Your task to perform on an android device: Do I have any events today? Image 0: 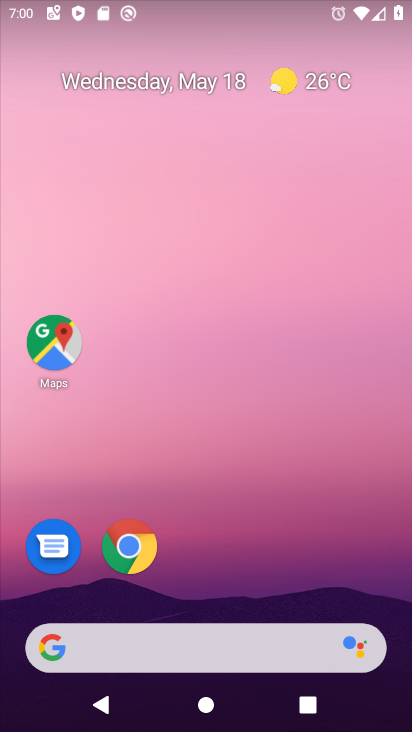
Step 0: drag from (376, 640) to (232, 83)
Your task to perform on an android device: Do I have any events today? Image 1: 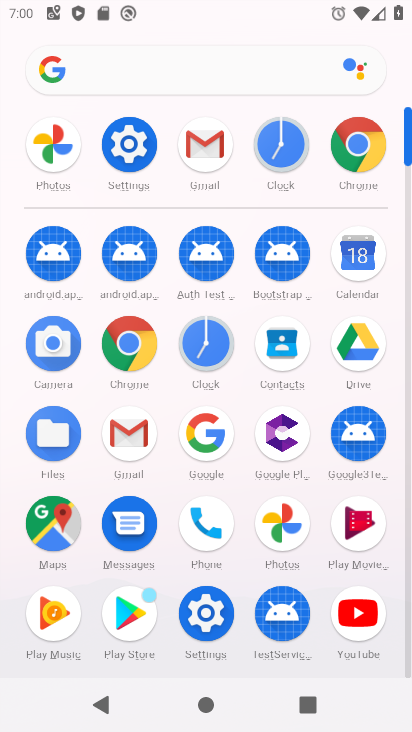
Step 1: click (378, 250)
Your task to perform on an android device: Do I have any events today? Image 2: 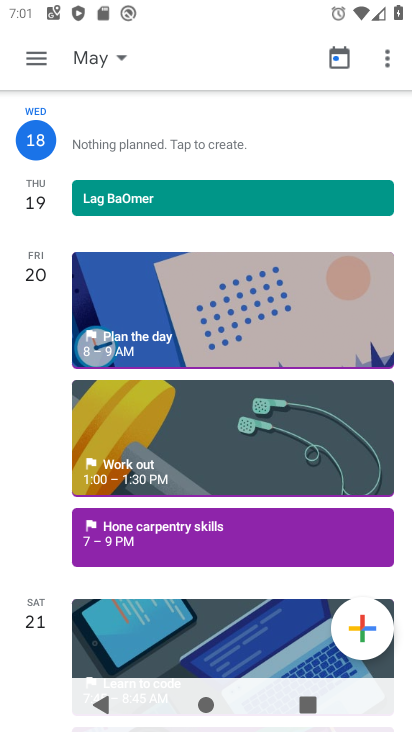
Step 2: click (92, 58)
Your task to perform on an android device: Do I have any events today? Image 3: 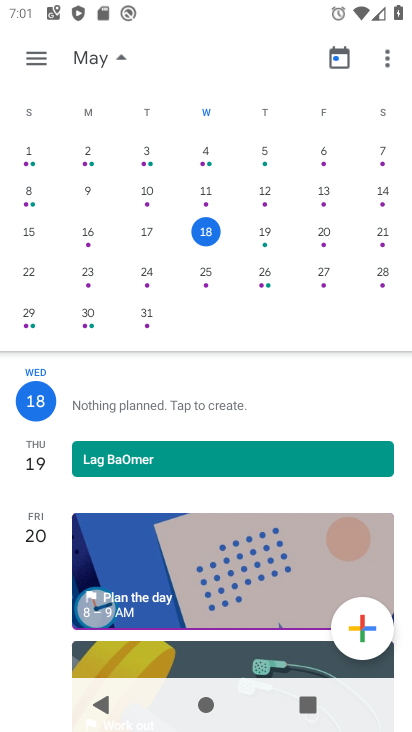
Step 3: click (264, 236)
Your task to perform on an android device: Do I have any events today? Image 4: 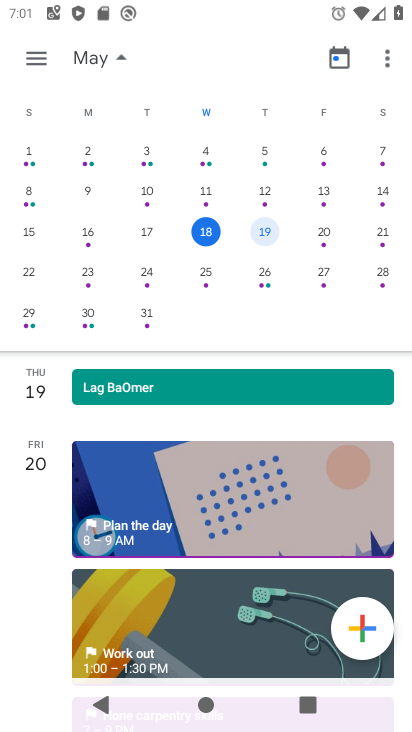
Step 4: click (207, 384)
Your task to perform on an android device: Do I have any events today? Image 5: 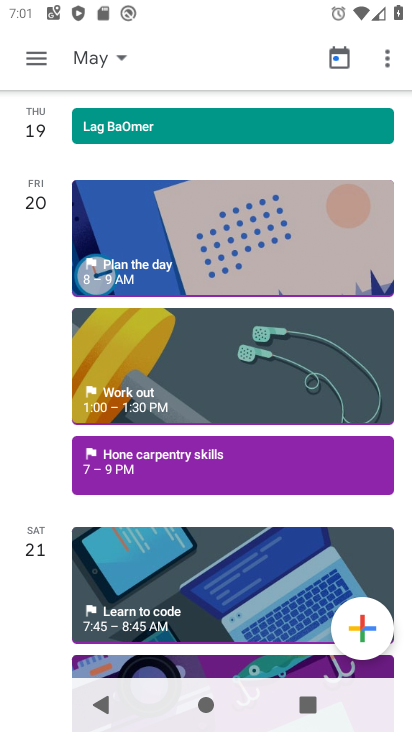
Step 5: task complete